Your task to perform on an android device: toggle sleep mode Image 0: 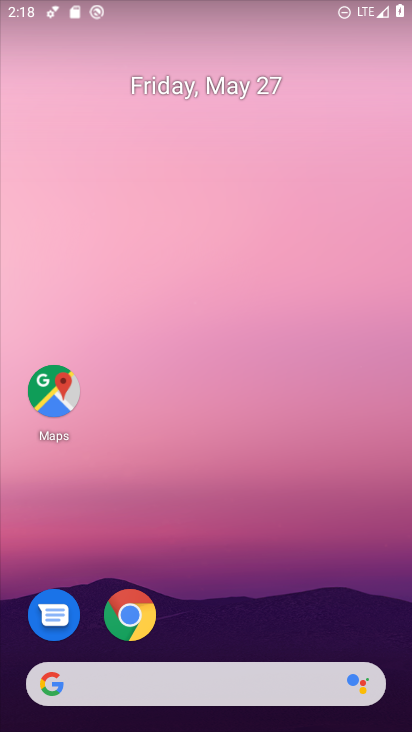
Step 0: drag from (254, 614) to (275, 207)
Your task to perform on an android device: toggle sleep mode Image 1: 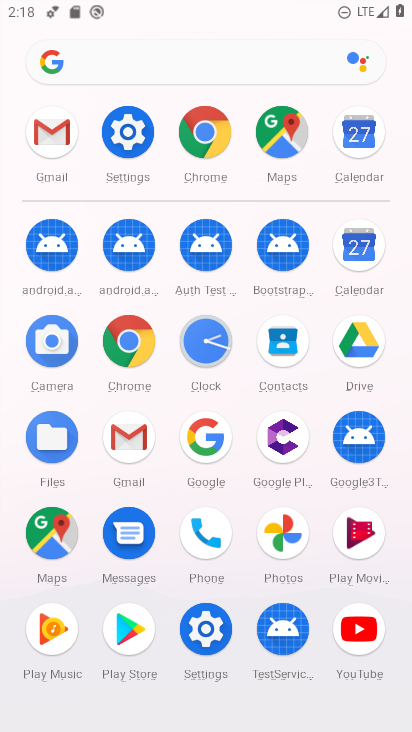
Step 1: click (206, 637)
Your task to perform on an android device: toggle sleep mode Image 2: 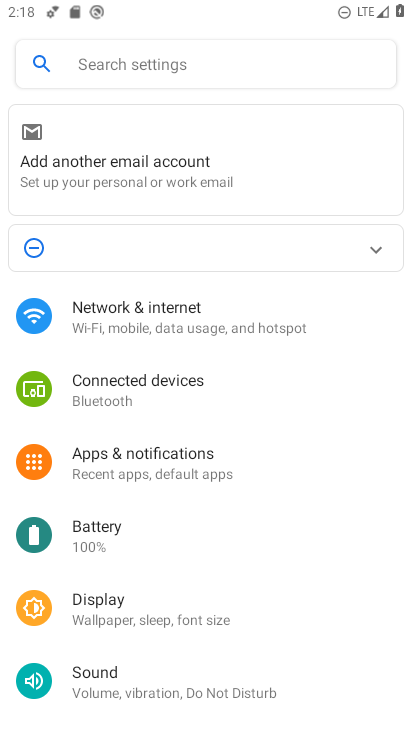
Step 2: task complete